Your task to perform on an android device: Clear the cart on target.com. Image 0: 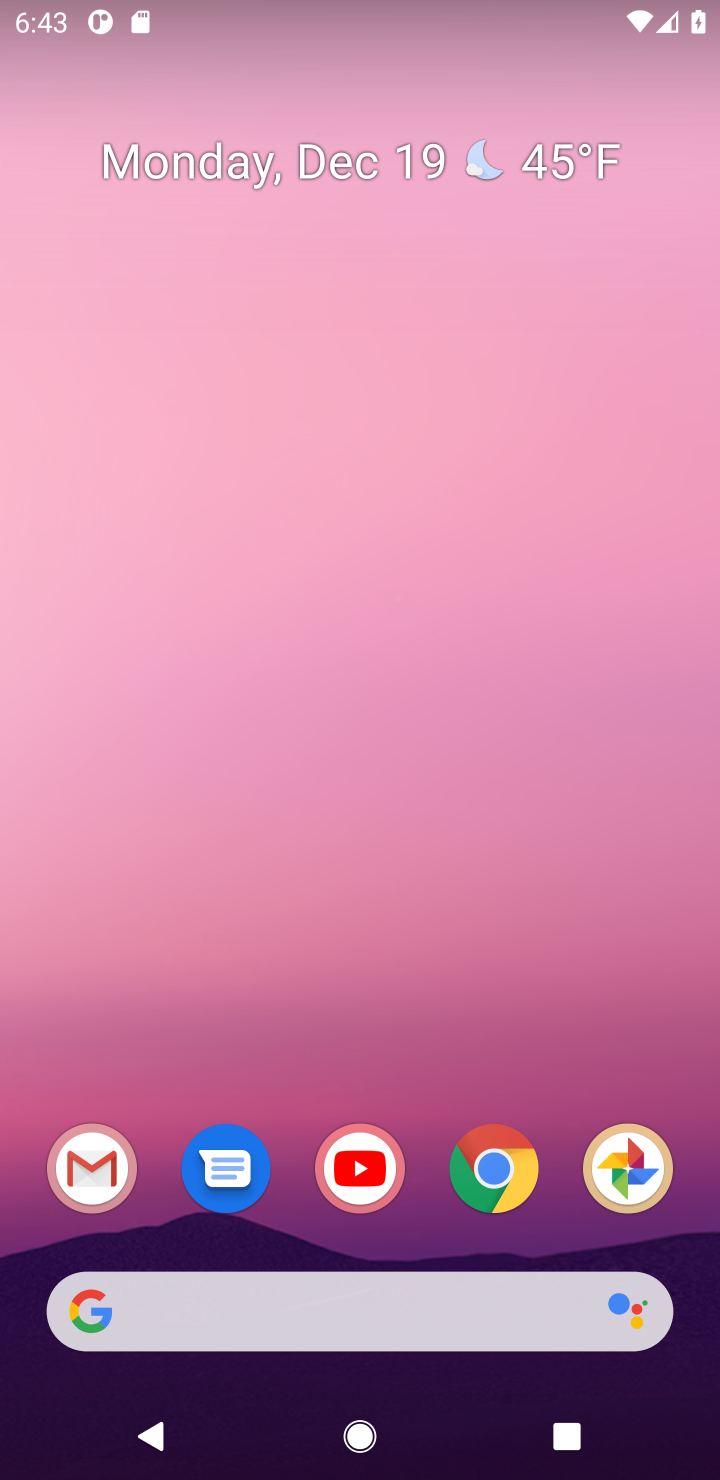
Step 0: click (502, 1170)
Your task to perform on an android device: Clear the cart on target.com. Image 1: 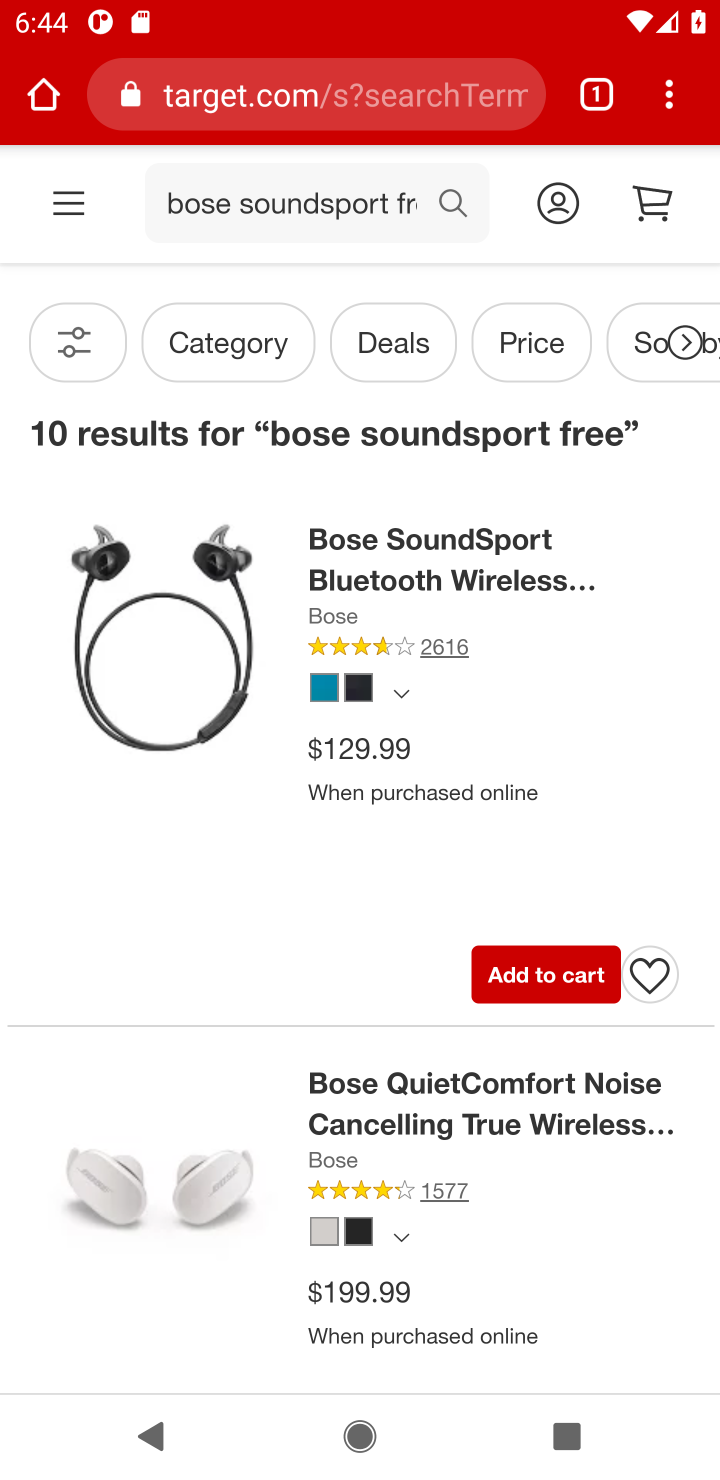
Step 1: click (643, 213)
Your task to perform on an android device: Clear the cart on target.com. Image 2: 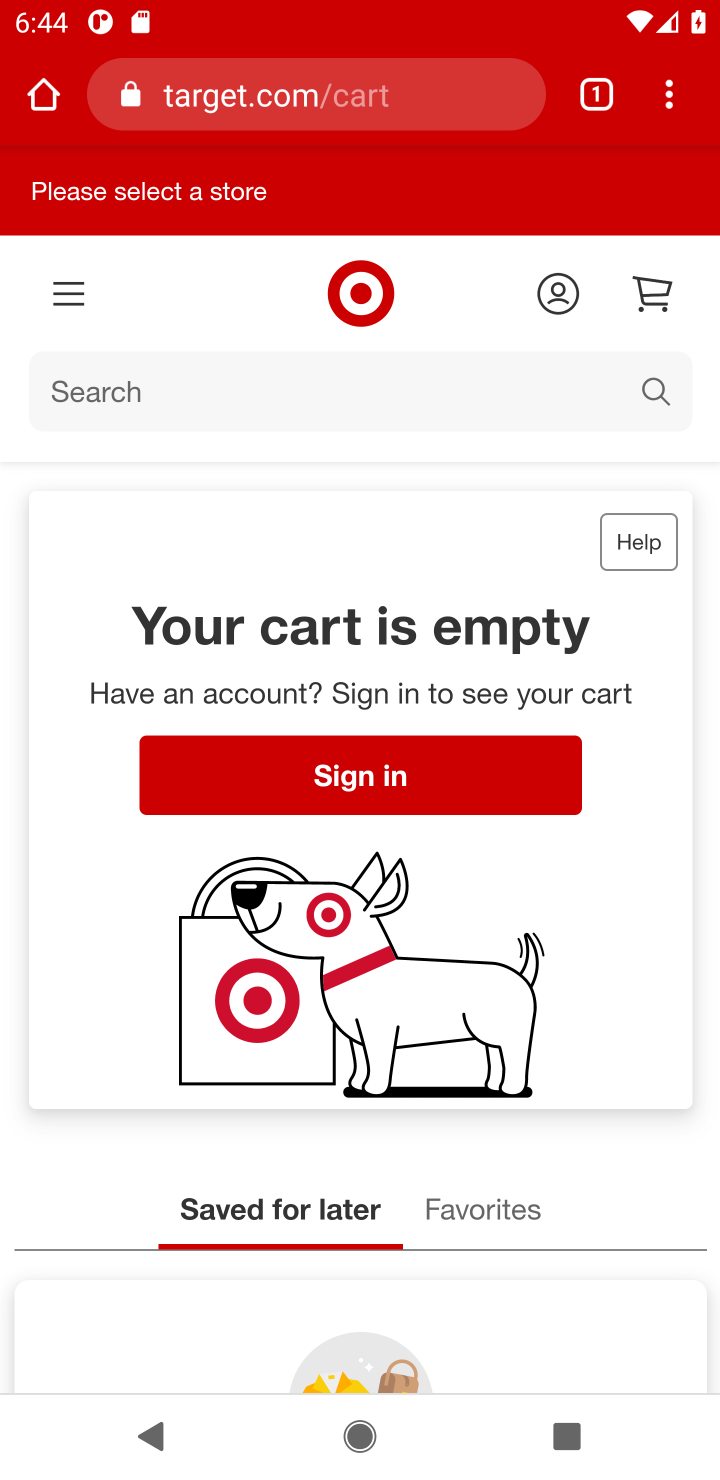
Step 2: task complete